Your task to perform on an android device: What's on the menu at Papa Murphy's? Image 0: 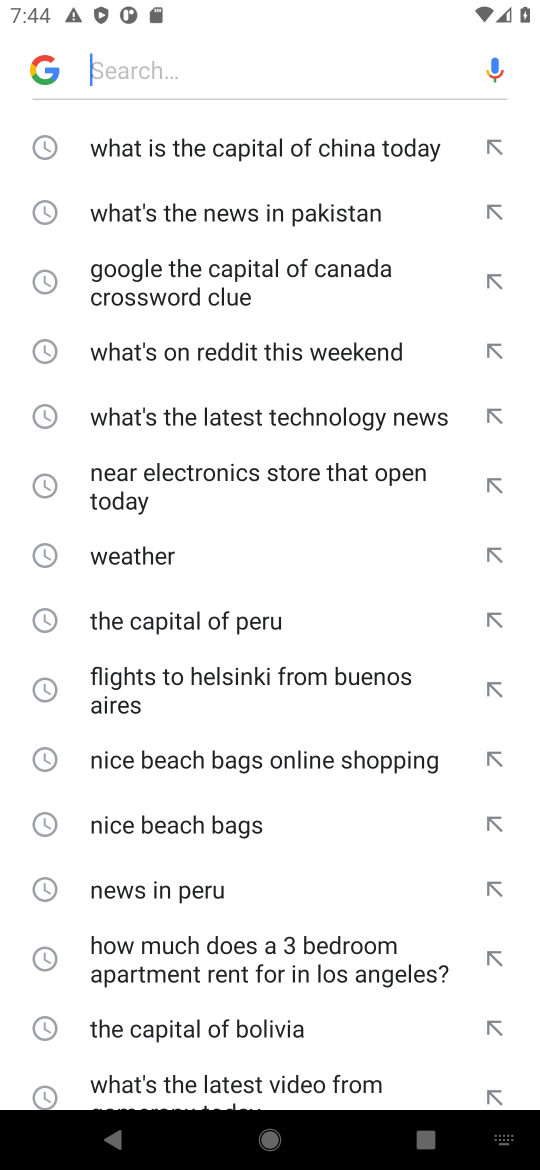
Step 0: type "What's on the menu at Papa Murphy's?"
Your task to perform on an android device: What's on the menu at Papa Murphy's? Image 1: 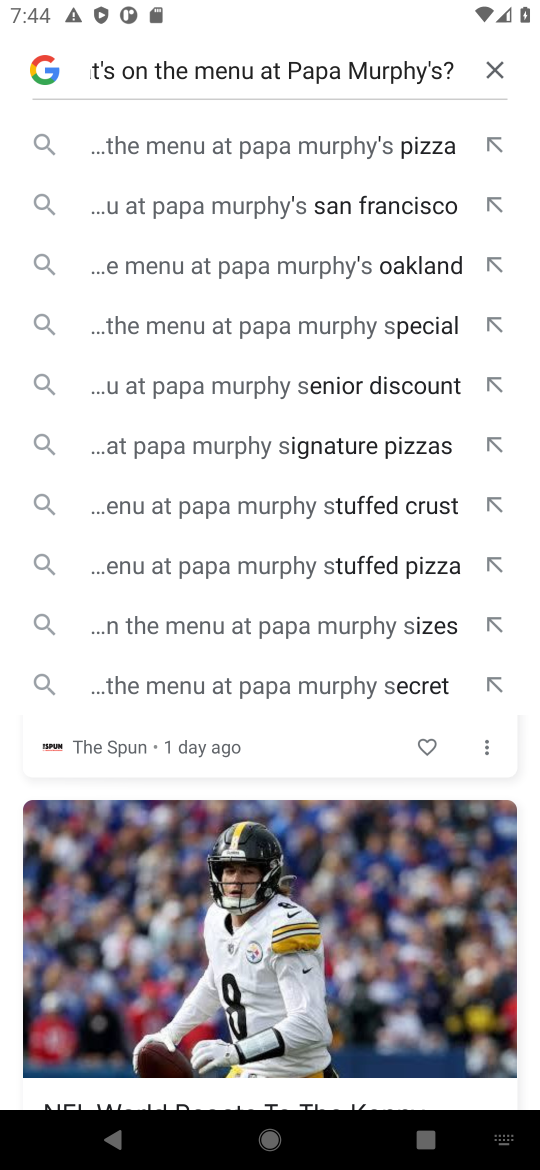
Step 1: press enter
Your task to perform on an android device: What's on the menu at Papa Murphy's? Image 2: 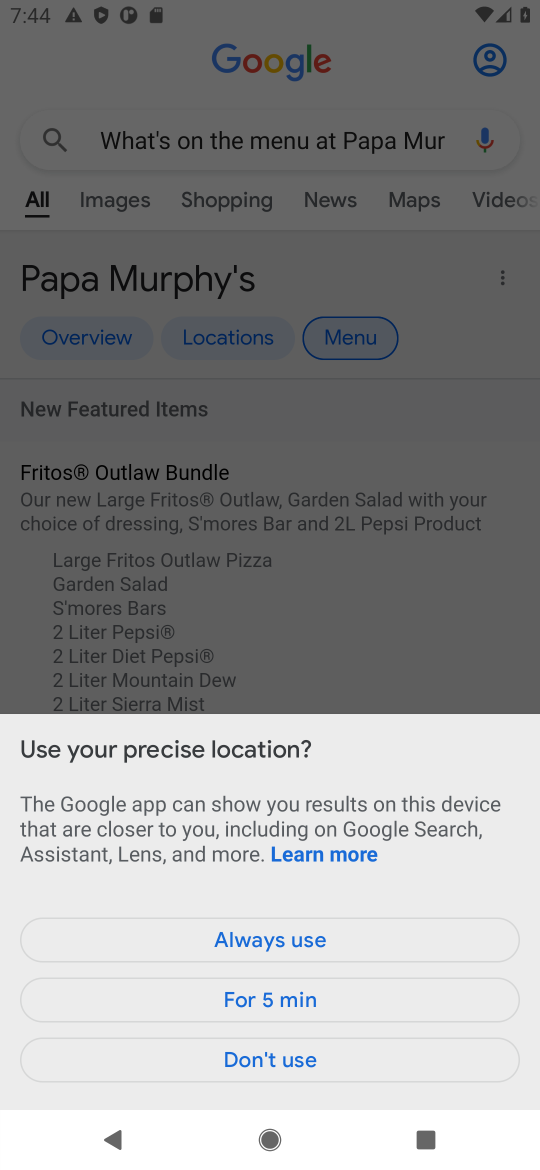
Step 2: click (405, 514)
Your task to perform on an android device: What's on the menu at Papa Murphy's? Image 3: 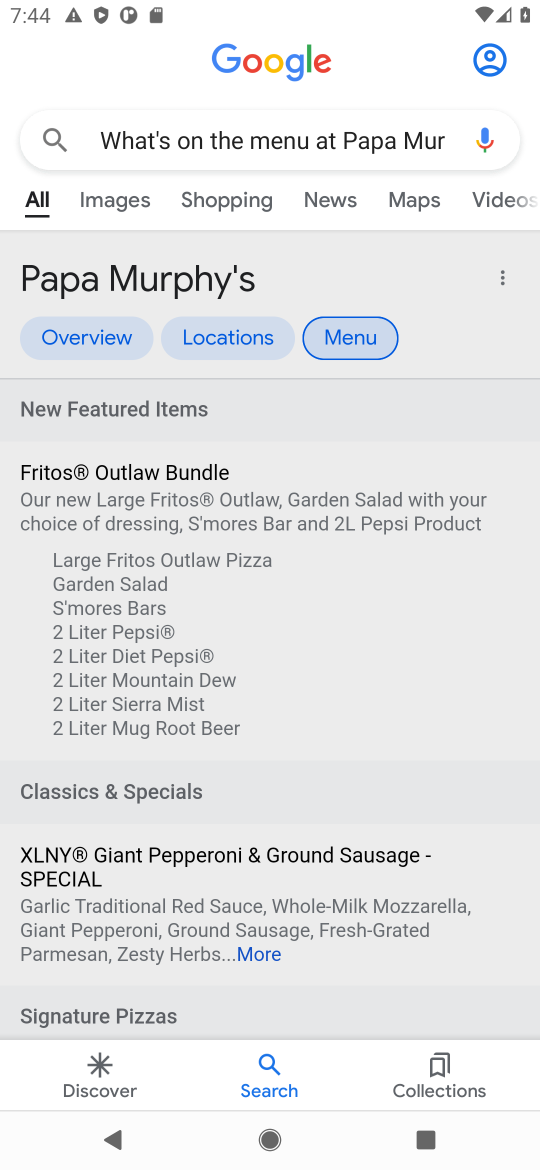
Step 3: click (344, 335)
Your task to perform on an android device: What's on the menu at Papa Murphy's? Image 4: 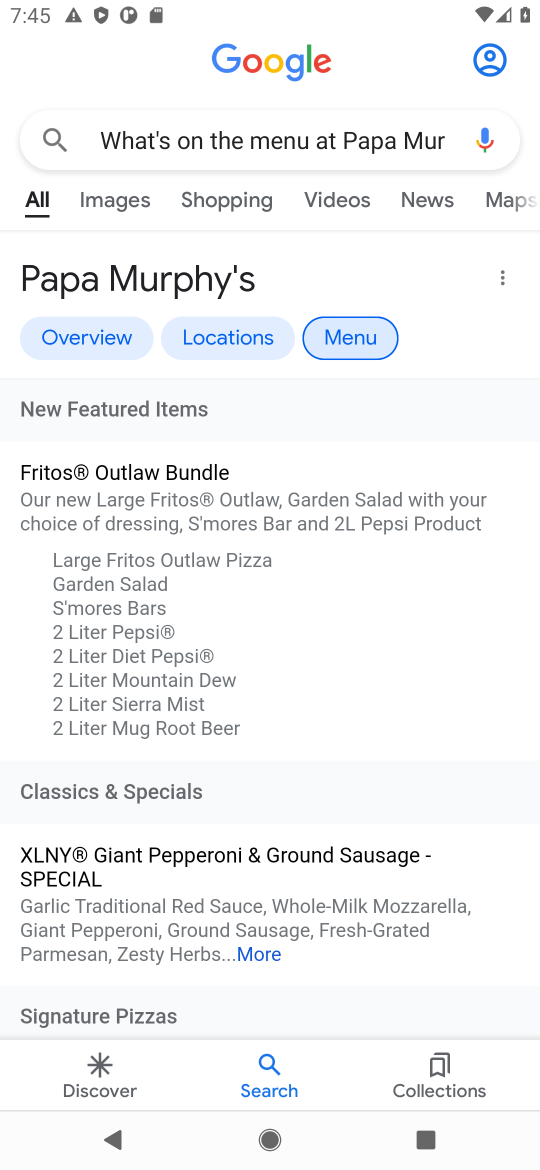
Step 4: task complete